Your task to perform on an android device: Go to settings Image 0: 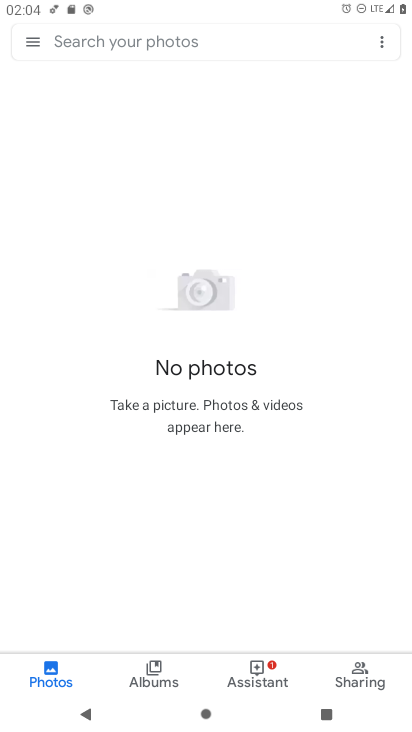
Step 0: press home button
Your task to perform on an android device: Go to settings Image 1: 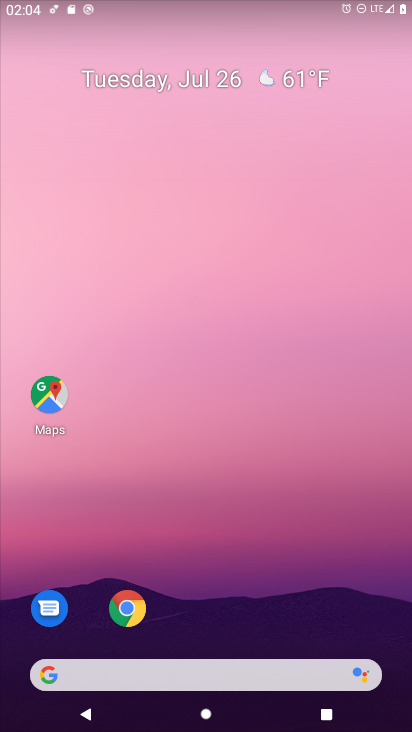
Step 1: drag from (28, 687) to (239, 82)
Your task to perform on an android device: Go to settings Image 2: 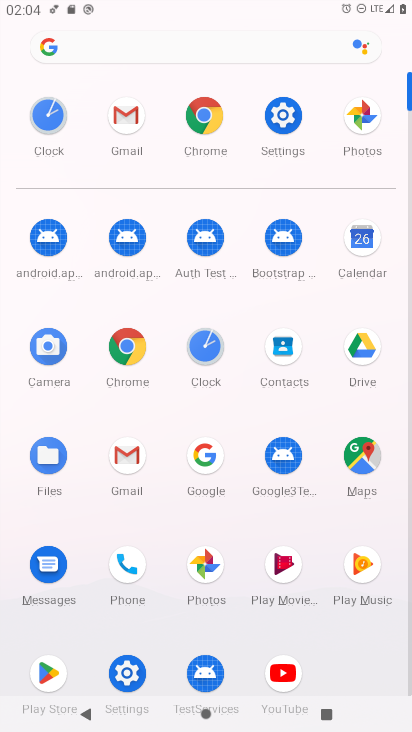
Step 2: click (281, 104)
Your task to perform on an android device: Go to settings Image 3: 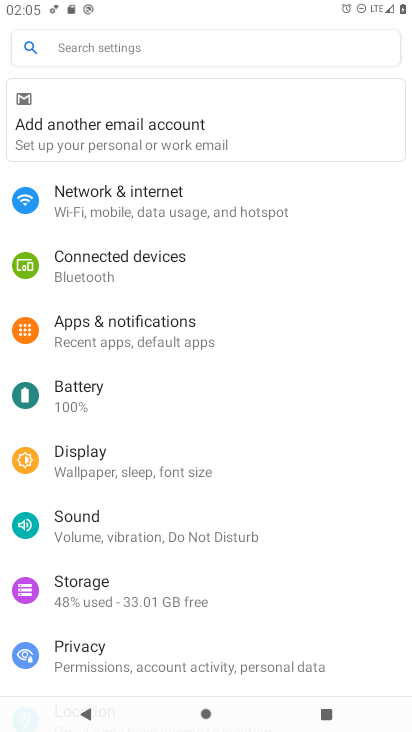
Step 3: task complete